Your task to perform on an android device: Open Google Maps Image 0: 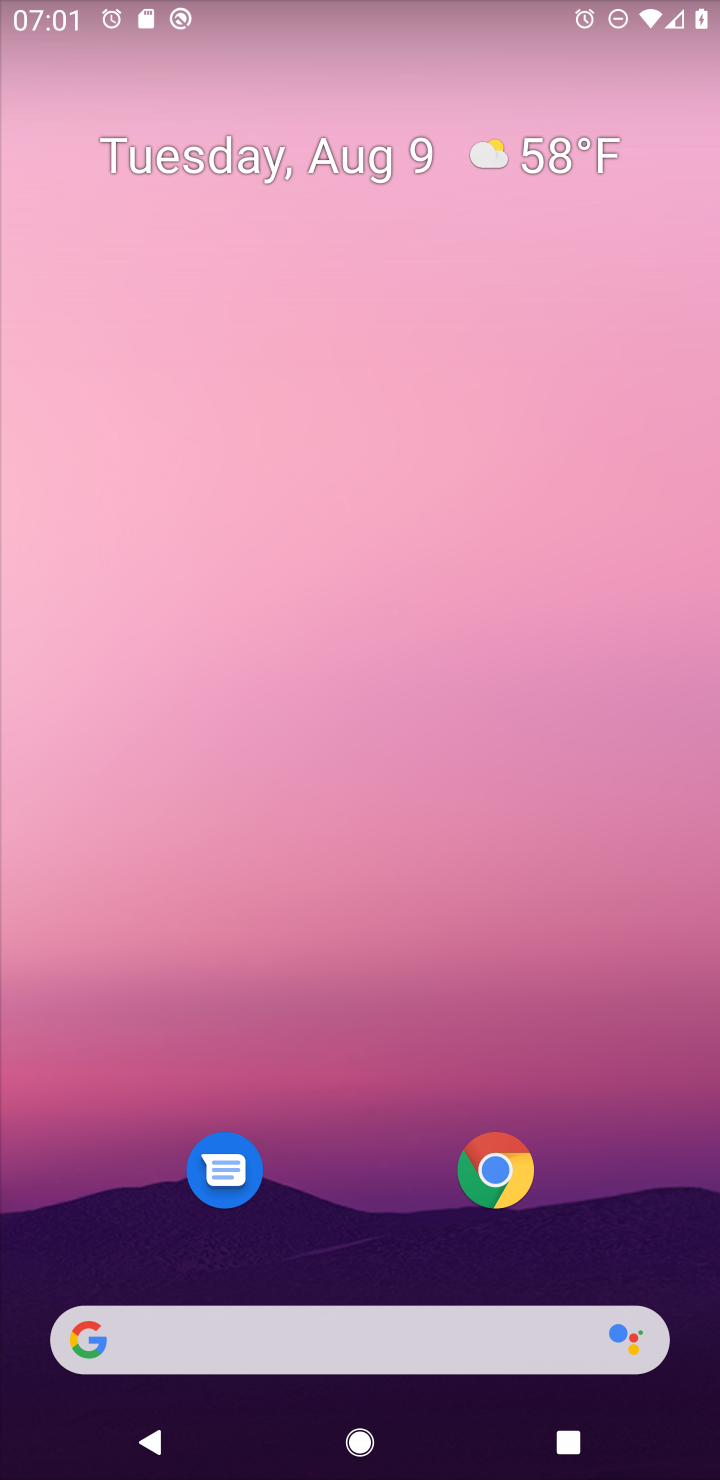
Step 0: drag from (347, 1097) to (470, 14)
Your task to perform on an android device: Open Google Maps Image 1: 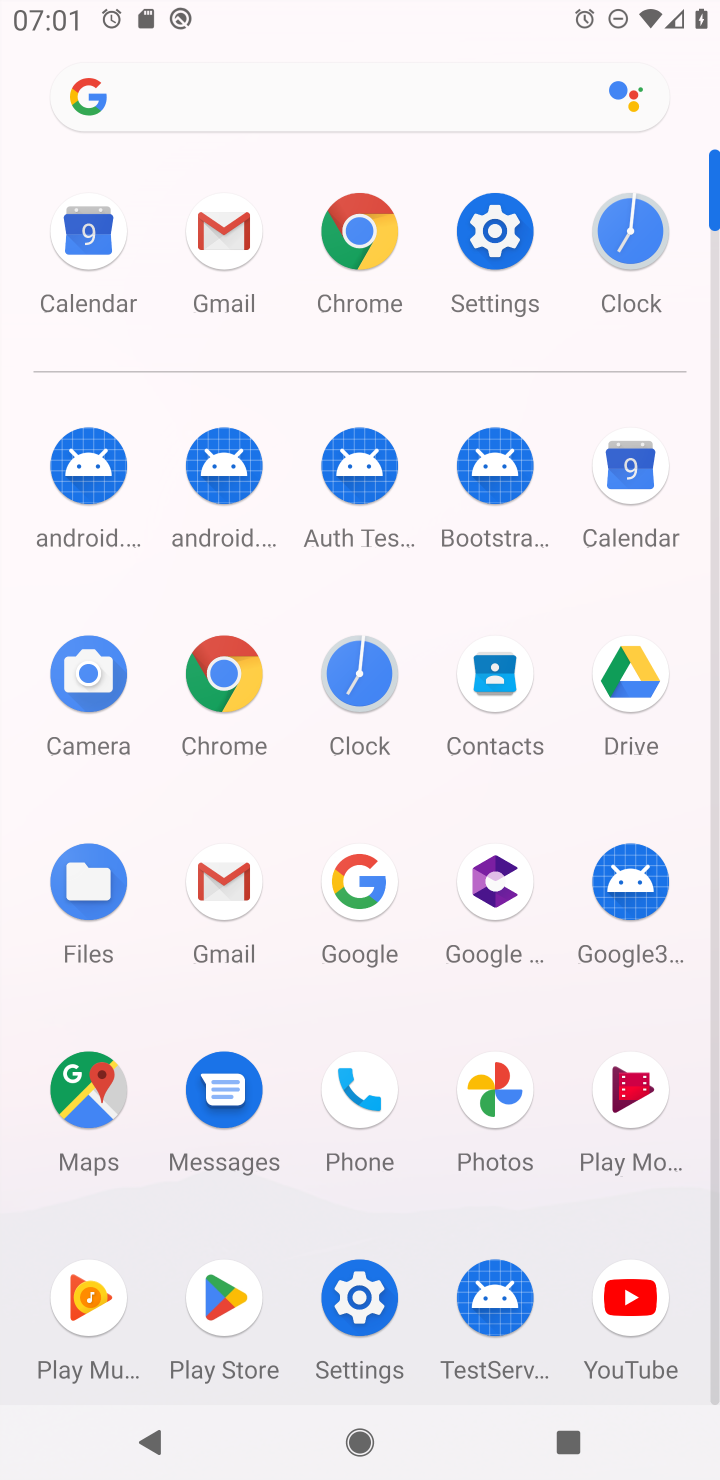
Step 1: click (95, 1099)
Your task to perform on an android device: Open Google Maps Image 2: 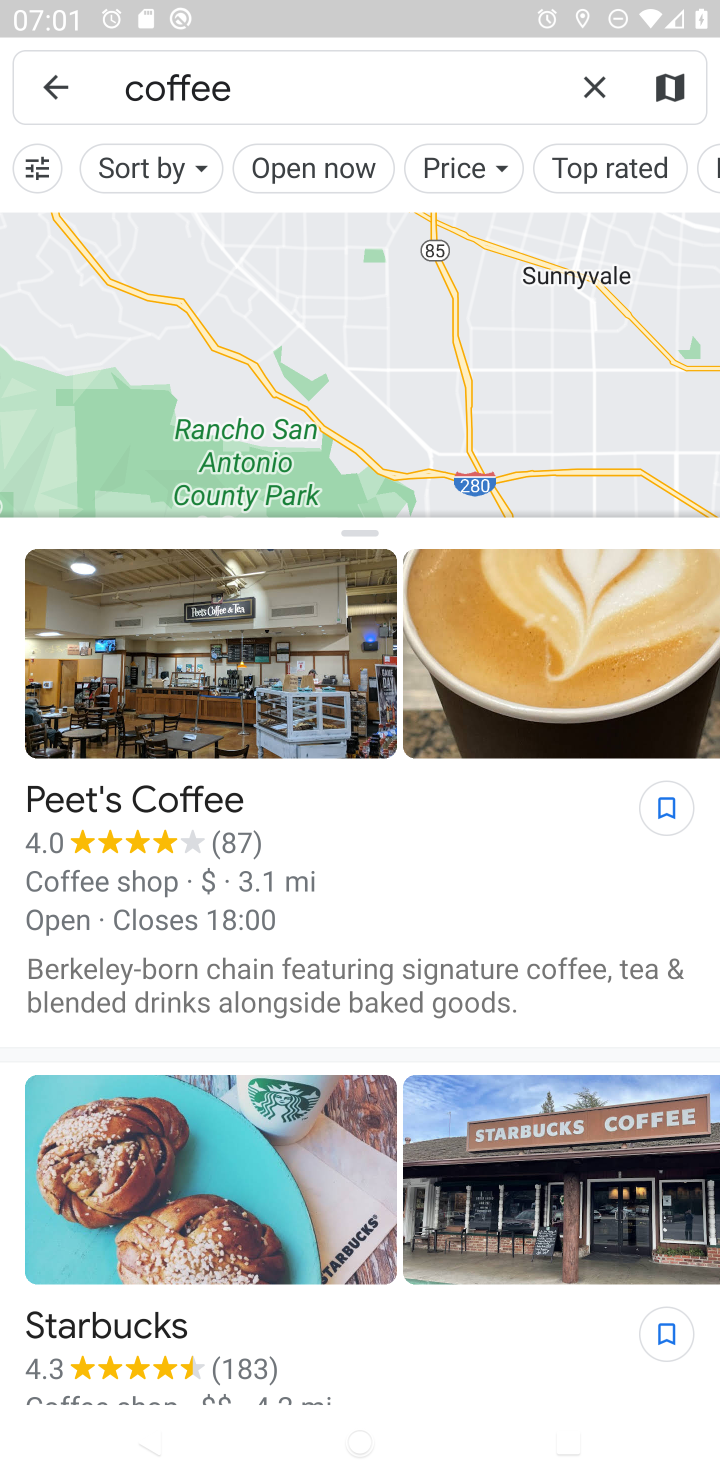
Step 2: click (46, 86)
Your task to perform on an android device: Open Google Maps Image 3: 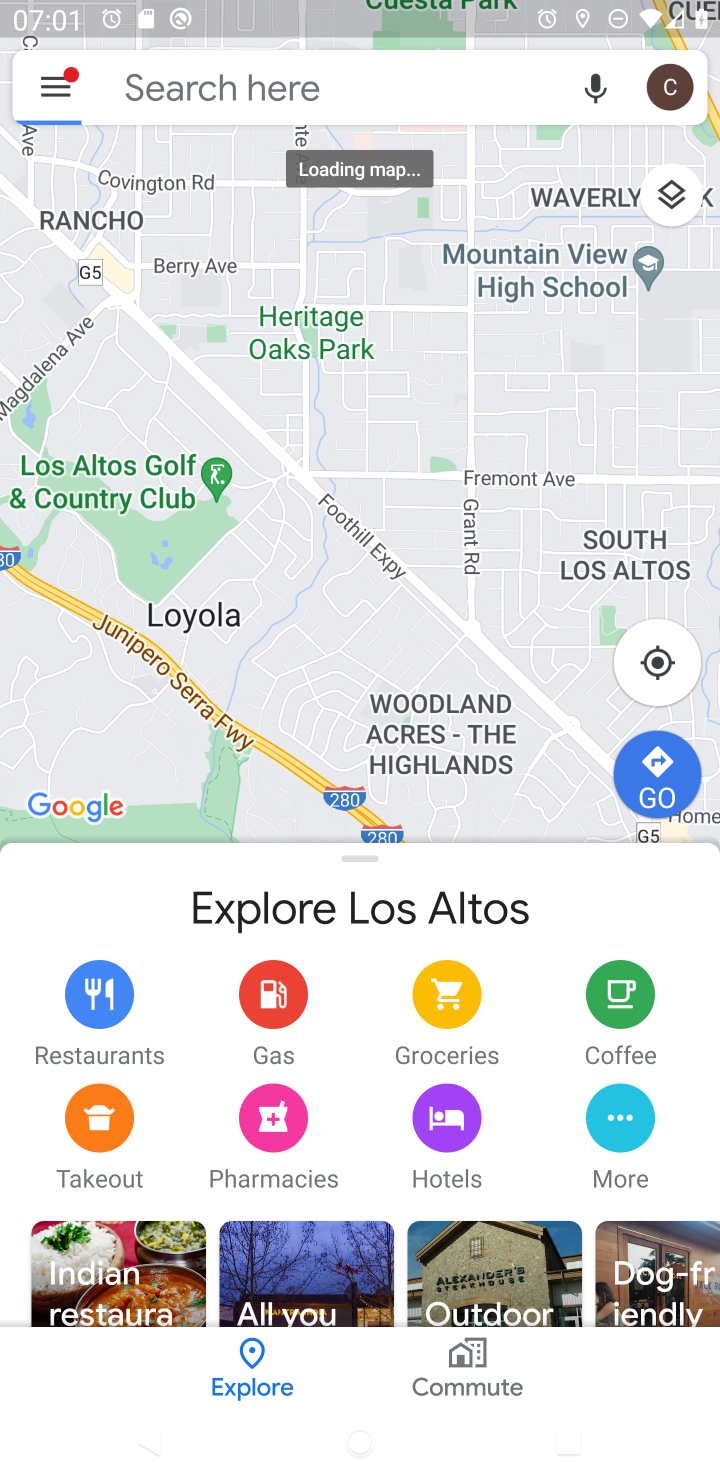
Step 3: task complete